Your task to perform on an android device: Search for pizza restaurants on Maps Image 0: 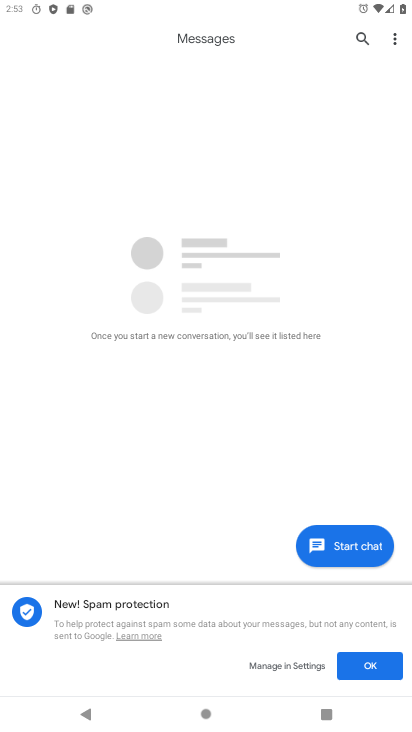
Step 0: press home button
Your task to perform on an android device: Search for pizza restaurants on Maps Image 1: 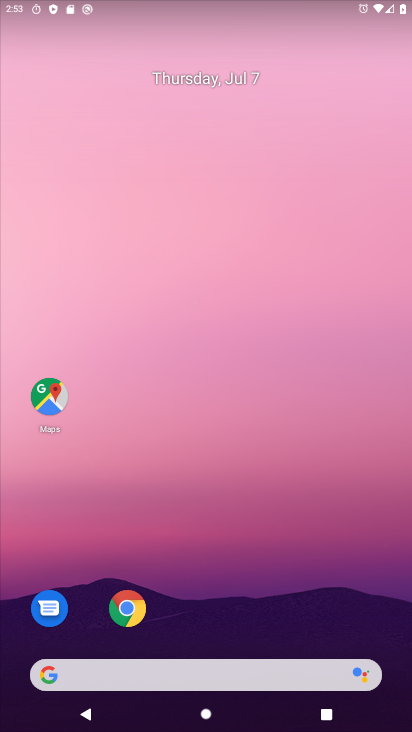
Step 1: drag from (249, 727) to (237, 178)
Your task to perform on an android device: Search for pizza restaurants on Maps Image 2: 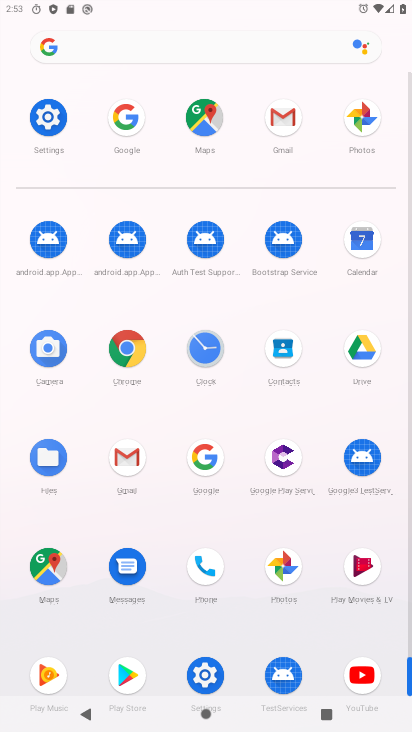
Step 2: click (44, 565)
Your task to perform on an android device: Search for pizza restaurants on Maps Image 3: 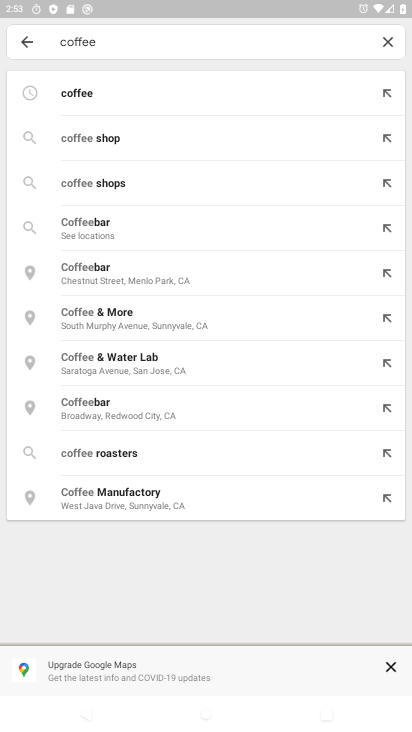
Step 3: click (389, 40)
Your task to perform on an android device: Search for pizza restaurants on Maps Image 4: 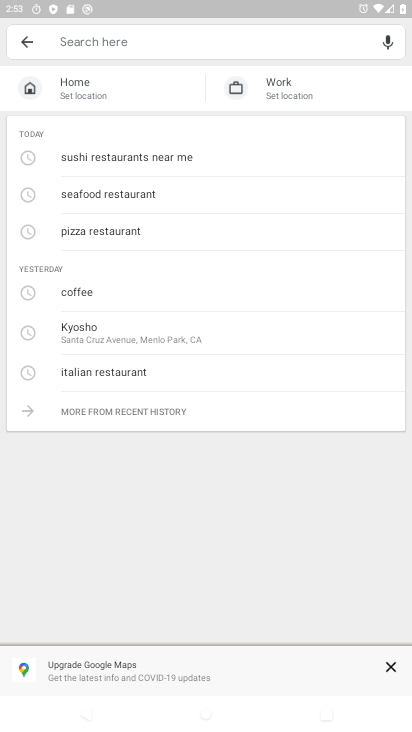
Step 4: click (278, 49)
Your task to perform on an android device: Search for pizza restaurants on Maps Image 5: 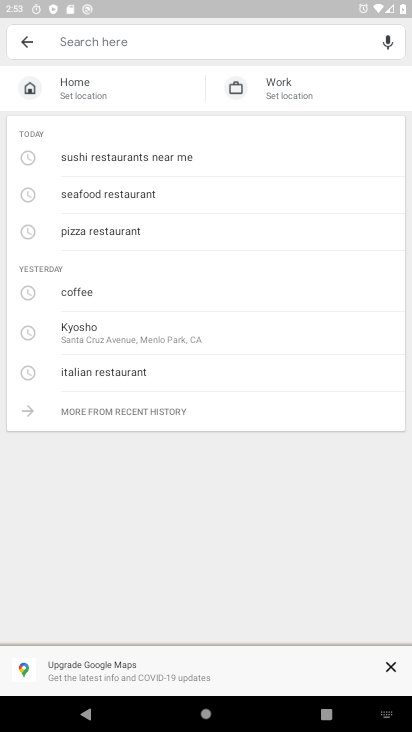
Step 5: type "pizza restaurants "
Your task to perform on an android device: Search for pizza restaurants on Maps Image 6: 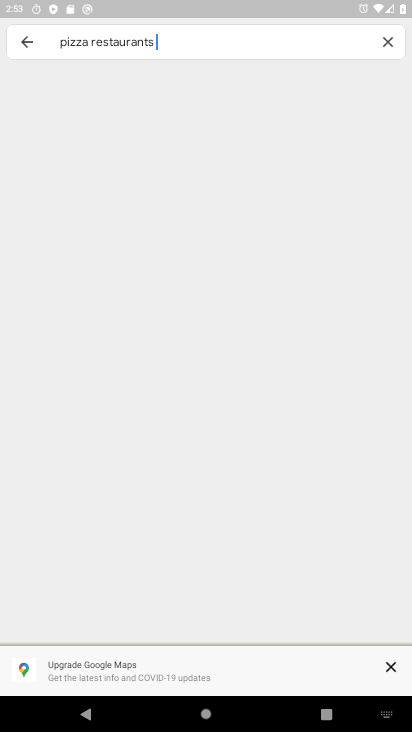
Step 6: type ""
Your task to perform on an android device: Search for pizza restaurants on Maps Image 7: 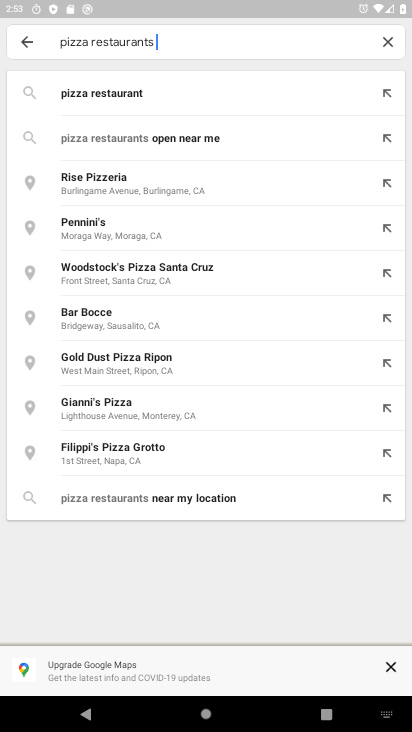
Step 7: click (123, 91)
Your task to perform on an android device: Search for pizza restaurants on Maps Image 8: 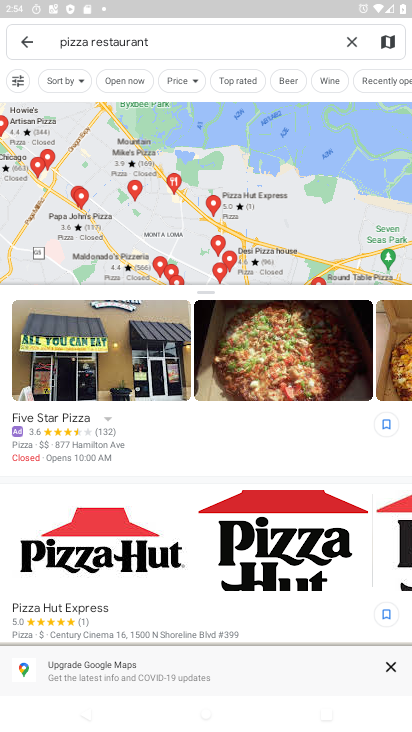
Step 8: task complete